Your task to perform on an android device: Open the Play Movies app and select the watchlist tab. Image 0: 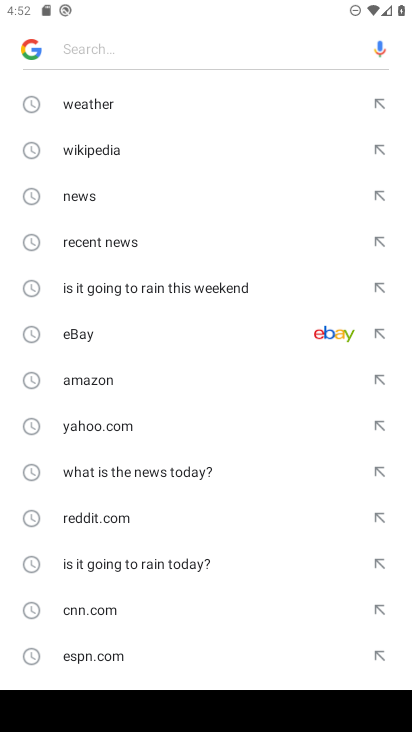
Step 0: press home button
Your task to perform on an android device: Open the Play Movies app and select the watchlist tab. Image 1: 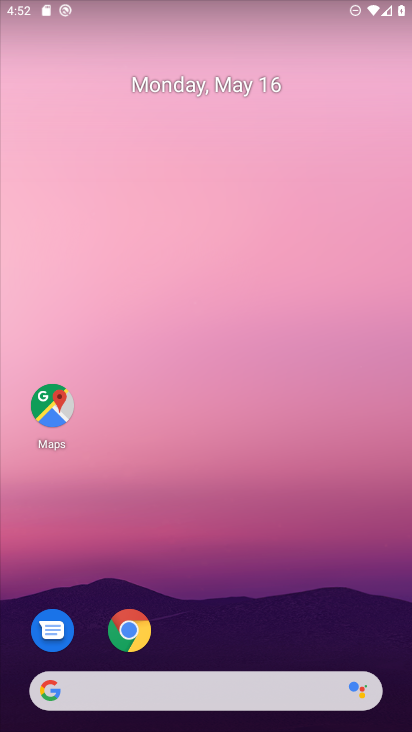
Step 1: drag from (274, 617) to (238, 70)
Your task to perform on an android device: Open the Play Movies app and select the watchlist tab. Image 2: 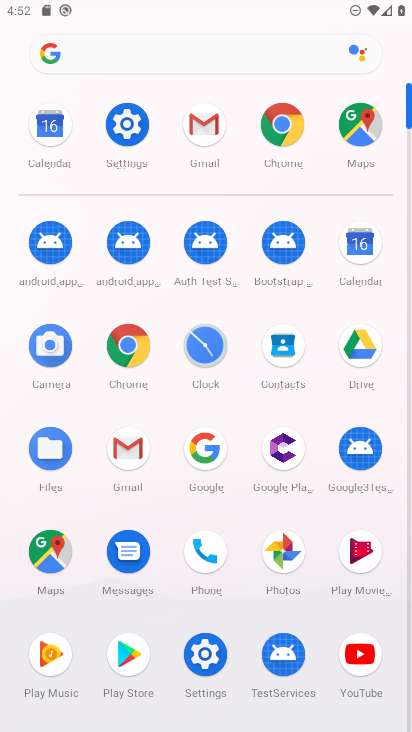
Step 2: click (360, 558)
Your task to perform on an android device: Open the Play Movies app and select the watchlist tab. Image 3: 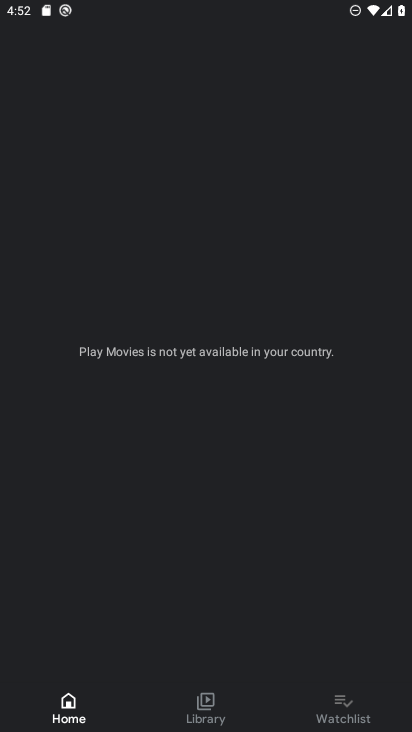
Step 3: click (360, 704)
Your task to perform on an android device: Open the Play Movies app and select the watchlist tab. Image 4: 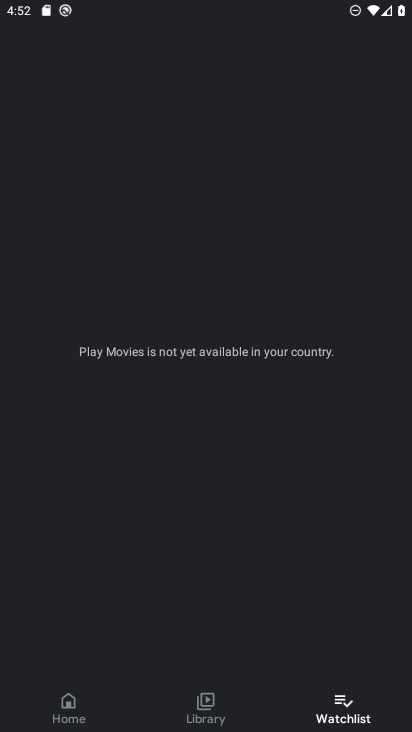
Step 4: task complete